Your task to perform on an android device: Go to Reddit.com Image 0: 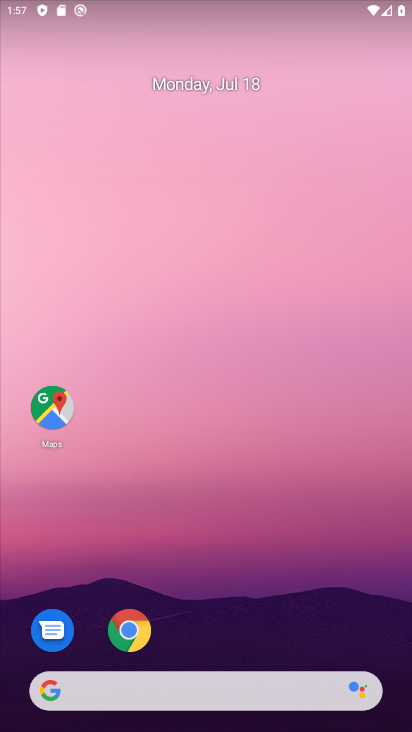
Step 0: click (135, 634)
Your task to perform on an android device: Go to Reddit.com Image 1: 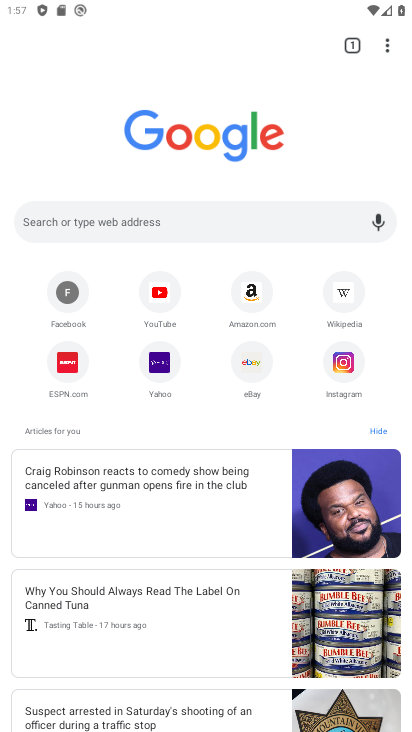
Step 1: click (125, 223)
Your task to perform on an android device: Go to Reddit.com Image 2: 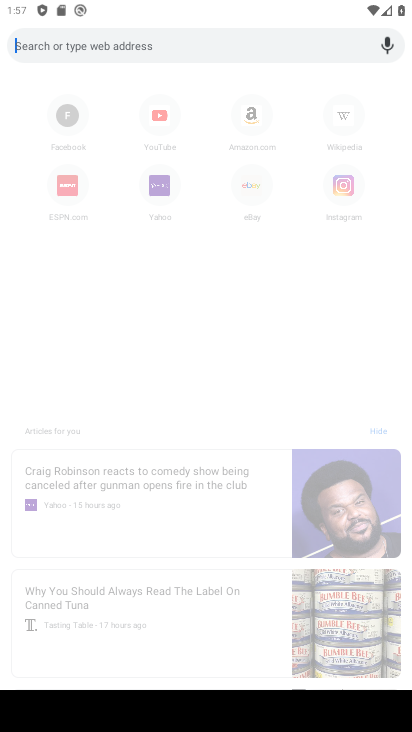
Step 2: type "Reddit.com"
Your task to perform on an android device: Go to Reddit.com Image 3: 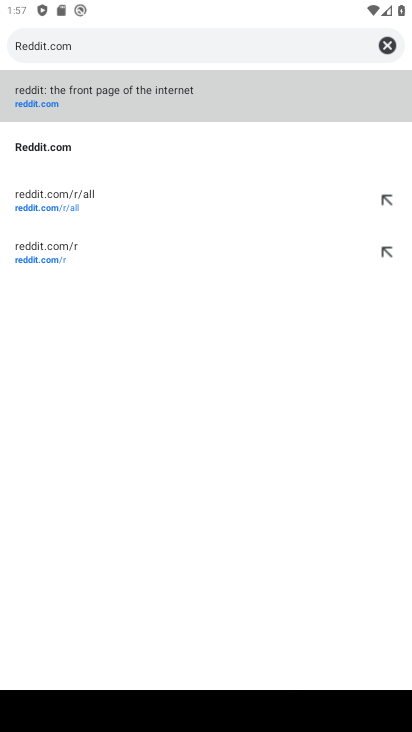
Step 3: click (55, 82)
Your task to perform on an android device: Go to Reddit.com Image 4: 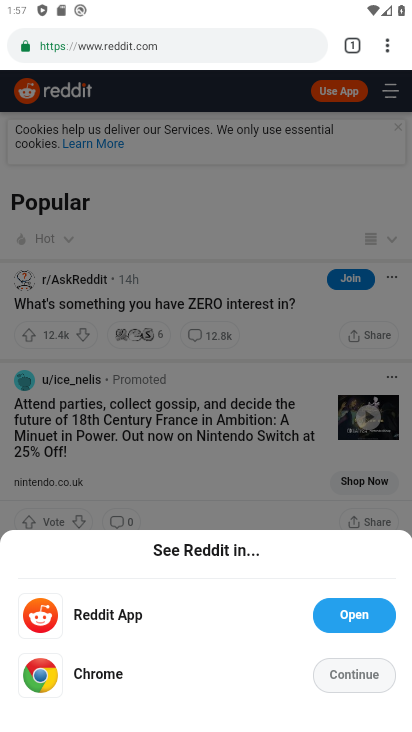
Step 4: task complete